Your task to perform on an android device: Search for asus rog on bestbuy.com, select the first entry, and add it to the cart. Image 0: 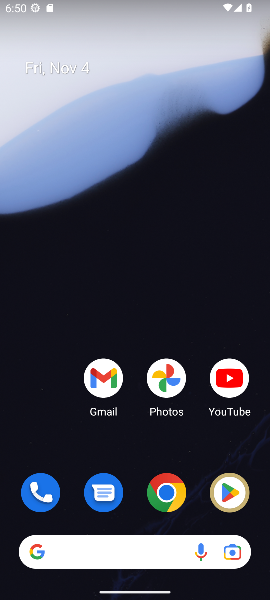
Step 0: drag from (128, 451) to (146, 75)
Your task to perform on an android device: Search for asus rog on bestbuy.com, select the first entry, and add it to the cart. Image 1: 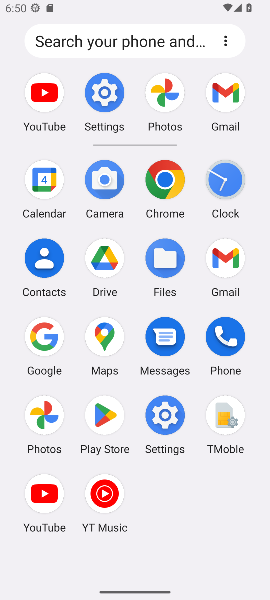
Step 1: click (163, 179)
Your task to perform on an android device: Search for asus rog on bestbuy.com, select the first entry, and add it to the cart. Image 2: 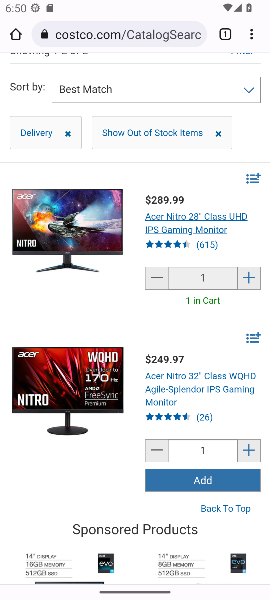
Step 2: click (165, 39)
Your task to perform on an android device: Search for asus rog on bestbuy.com, select the first entry, and add it to the cart. Image 3: 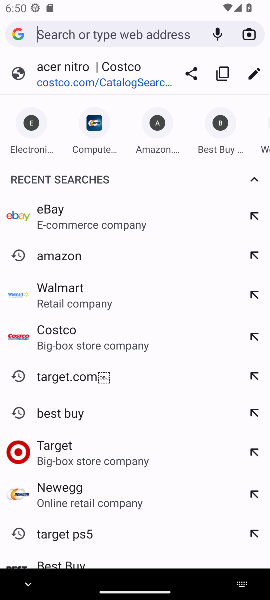
Step 3: type "bestbuy.com"
Your task to perform on an android device: Search for asus rog on bestbuy.com, select the first entry, and add it to the cart. Image 4: 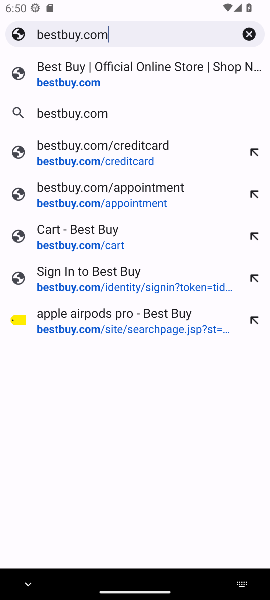
Step 4: press enter
Your task to perform on an android device: Search for asus rog on bestbuy.com, select the first entry, and add it to the cart. Image 5: 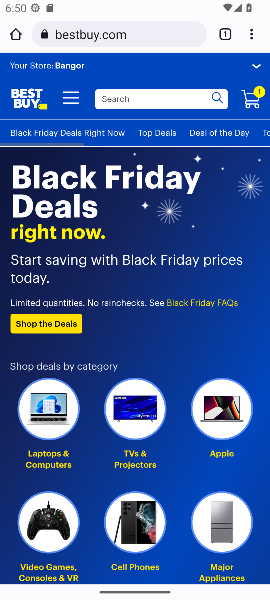
Step 5: click (147, 94)
Your task to perform on an android device: Search for asus rog on bestbuy.com, select the first entry, and add it to the cart. Image 6: 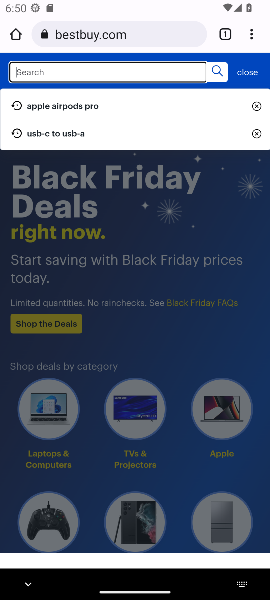
Step 6: type "asus rog"
Your task to perform on an android device: Search for asus rog on bestbuy.com, select the first entry, and add it to the cart. Image 7: 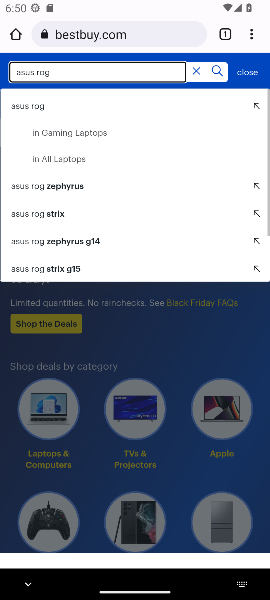
Step 7: press enter
Your task to perform on an android device: Search for asus rog on bestbuy.com, select the first entry, and add it to the cart. Image 8: 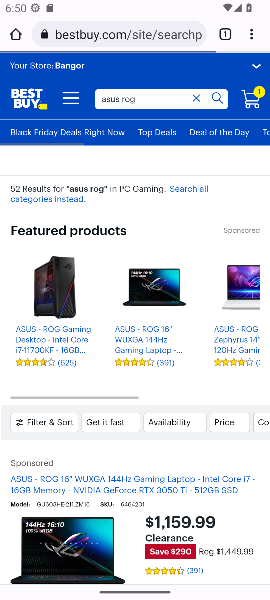
Step 8: drag from (139, 489) to (163, 85)
Your task to perform on an android device: Search for asus rog on bestbuy.com, select the first entry, and add it to the cart. Image 9: 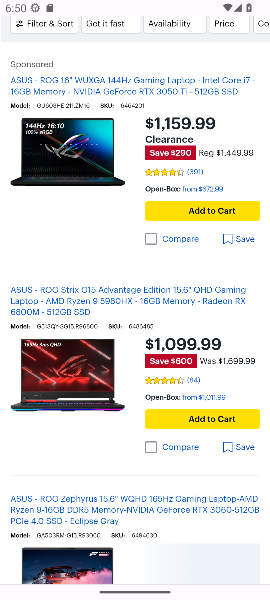
Step 9: click (107, 315)
Your task to perform on an android device: Search for asus rog on bestbuy.com, select the first entry, and add it to the cart. Image 10: 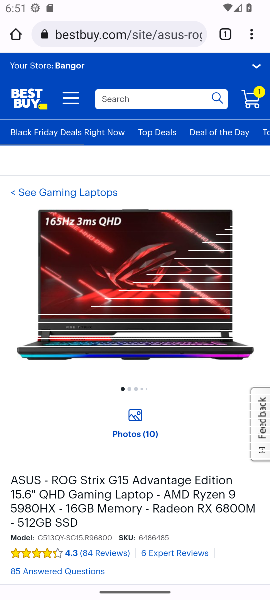
Step 10: drag from (153, 479) to (227, 100)
Your task to perform on an android device: Search for asus rog on bestbuy.com, select the first entry, and add it to the cart. Image 11: 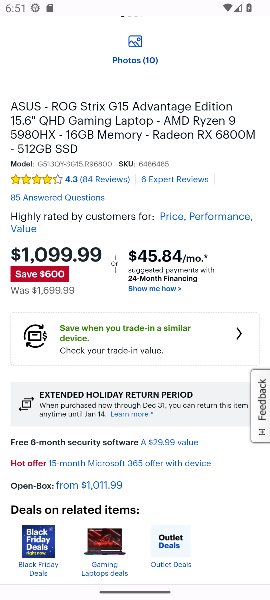
Step 11: drag from (142, 444) to (163, 72)
Your task to perform on an android device: Search for asus rog on bestbuy.com, select the first entry, and add it to the cart. Image 12: 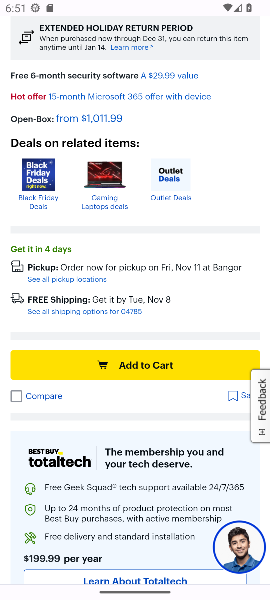
Step 12: click (171, 369)
Your task to perform on an android device: Search for asus rog on bestbuy.com, select the first entry, and add it to the cart. Image 13: 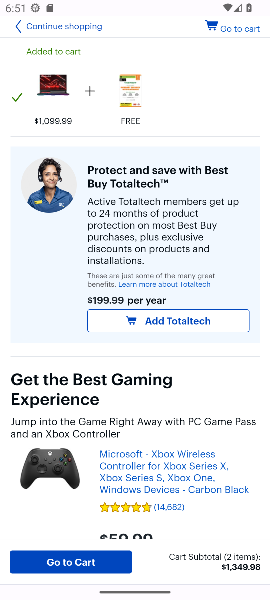
Step 13: task complete